Your task to perform on an android device: turn on improve location accuracy Image 0: 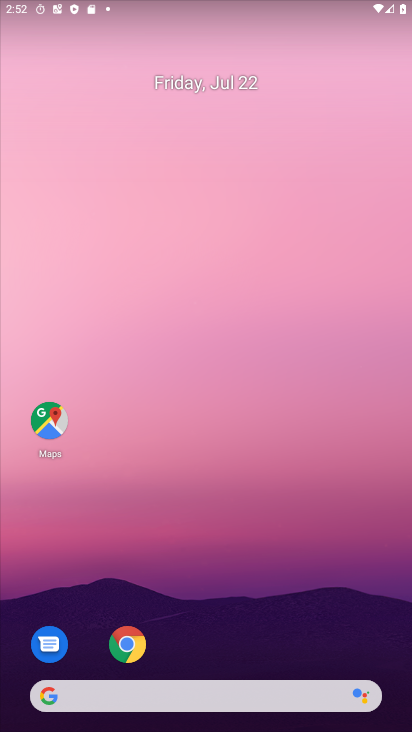
Step 0: press home button
Your task to perform on an android device: turn on improve location accuracy Image 1: 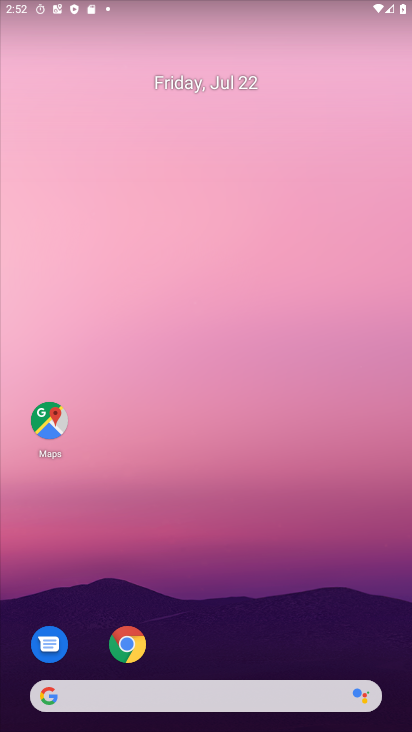
Step 1: drag from (213, 632) to (302, 115)
Your task to perform on an android device: turn on improve location accuracy Image 2: 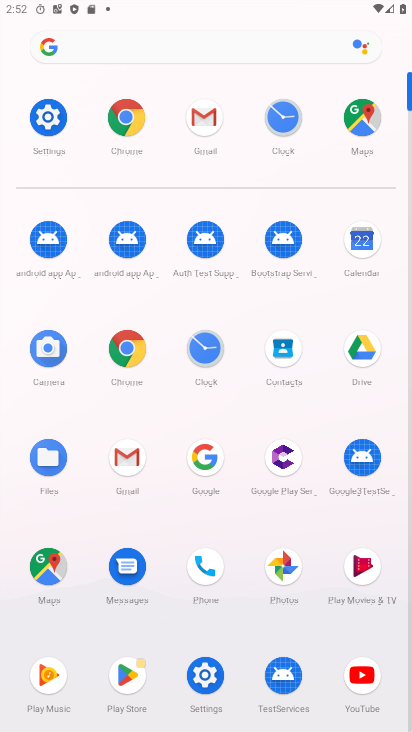
Step 2: click (52, 129)
Your task to perform on an android device: turn on improve location accuracy Image 3: 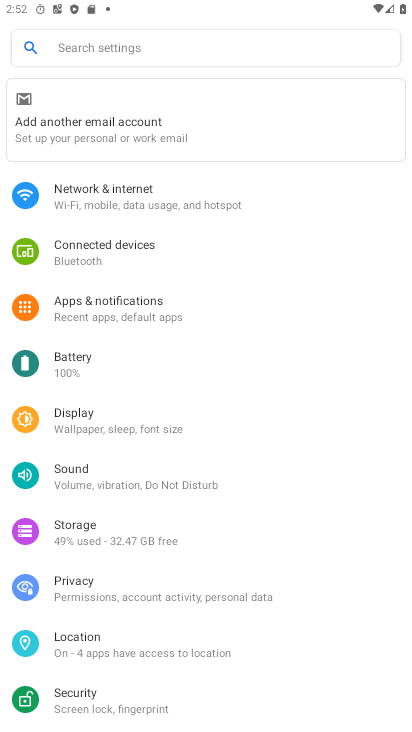
Step 3: click (62, 642)
Your task to perform on an android device: turn on improve location accuracy Image 4: 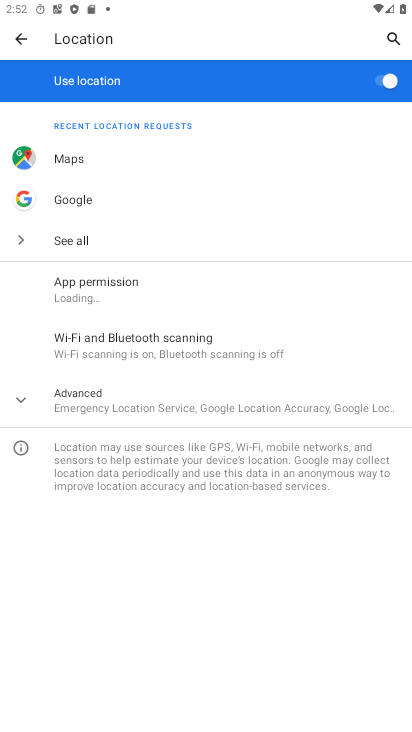
Step 4: click (102, 406)
Your task to perform on an android device: turn on improve location accuracy Image 5: 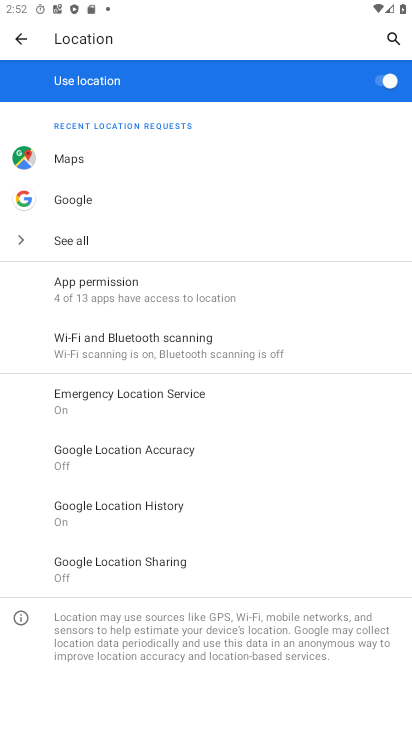
Step 5: click (141, 453)
Your task to perform on an android device: turn on improve location accuracy Image 6: 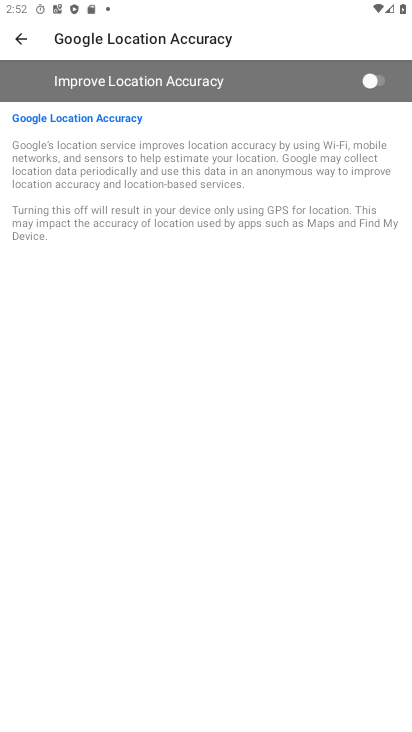
Step 6: click (366, 81)
Your task to perform on an android device: turn on improve location accuracy Image 7: 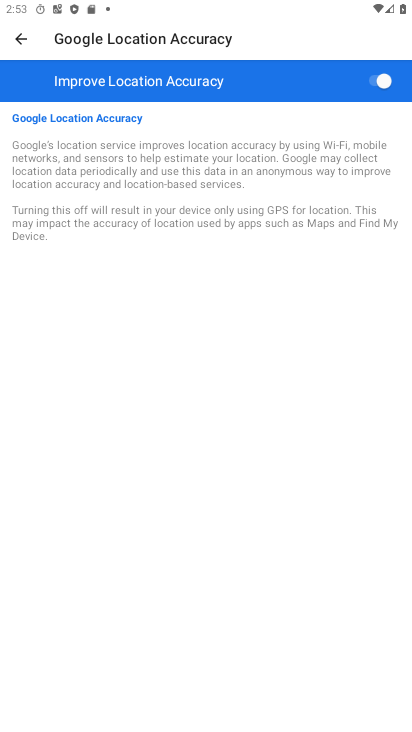
Step 7: task complete